Your task to perform on an android device: Open display settings Image 0: 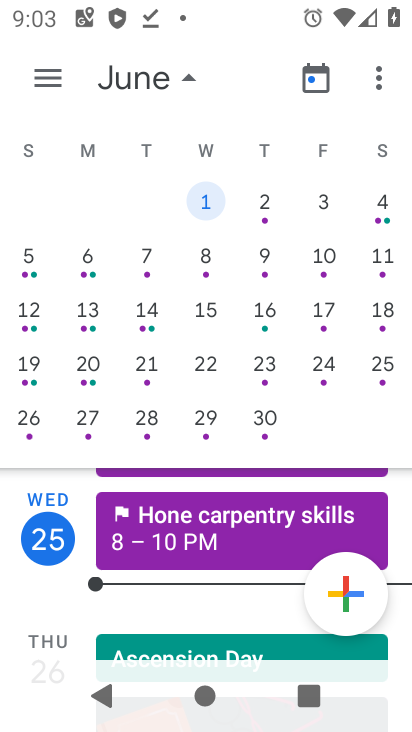
Step 0: drag from (270, 665) to (206, 92)
Your task to perform on an android device: Open display settings Image 1: 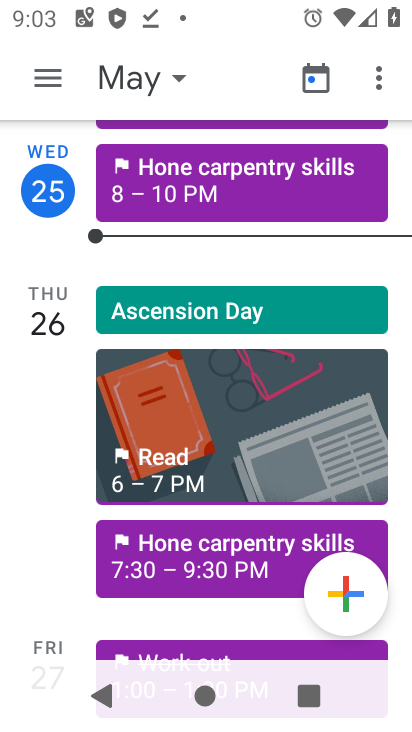
Step 1: press back button
Your task to perform on an android device: Open display settings Image 2: 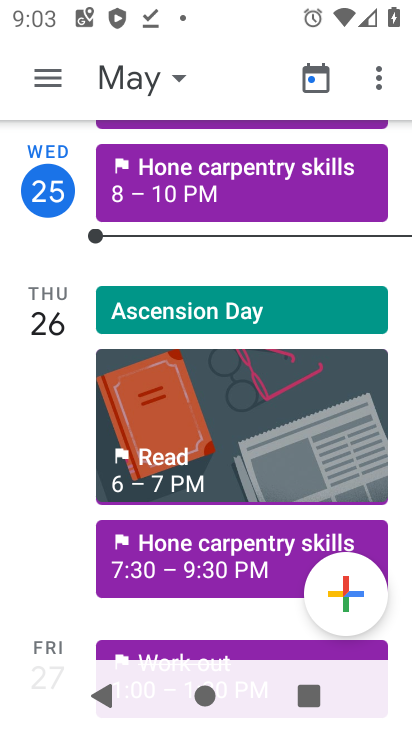
Step 2: press back button
Your task to perform on an android device: Open display settings Image 3: 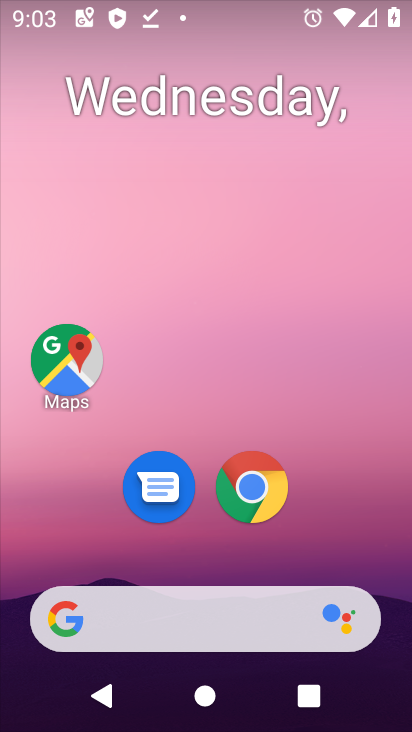
Step 3: drag from (270, 670) to (179, 191)
Your task to perform on an android device: Open display settings Image 4: 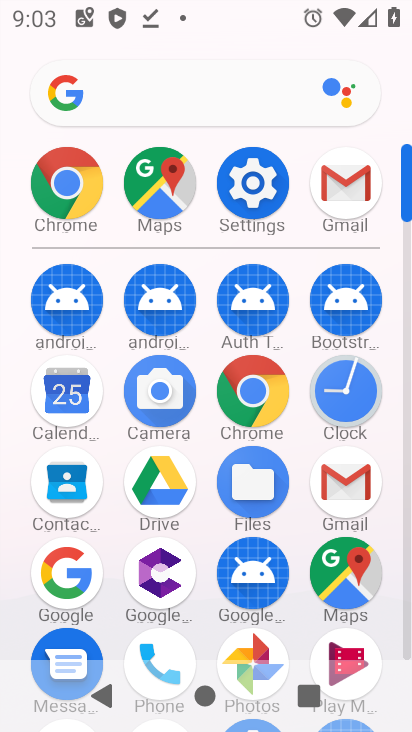
Step 4: click (255, 185)
Your task to perform on an android device: Open display settings Image 5: 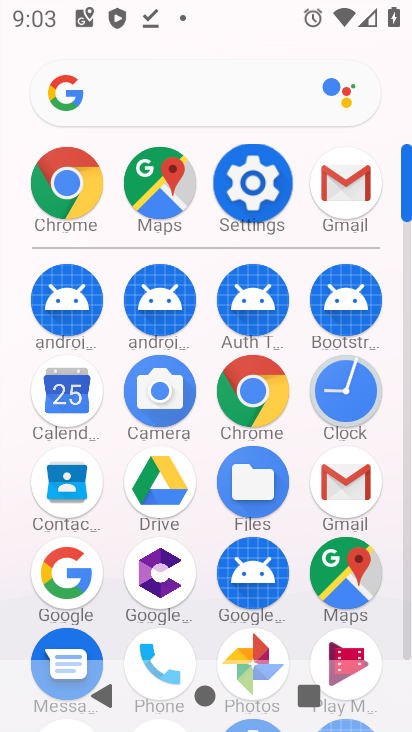
Step 5: click (255, 185)
Your task to perform on an android device: Open display settings Image 6: 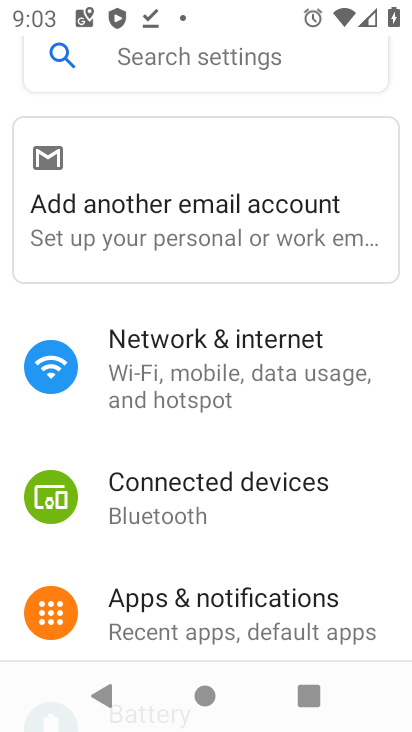
Step 6: drag from (172, 416) to (35, 71)
Your task to perform on an android device: Open display settings Image 7: 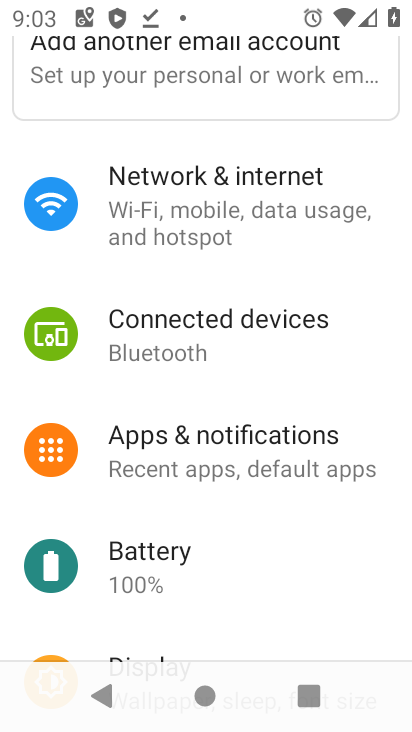
Step 7: drag from (163, 419) to (168, 129)
Your task to perform on an android device: Open display settings Image 8: 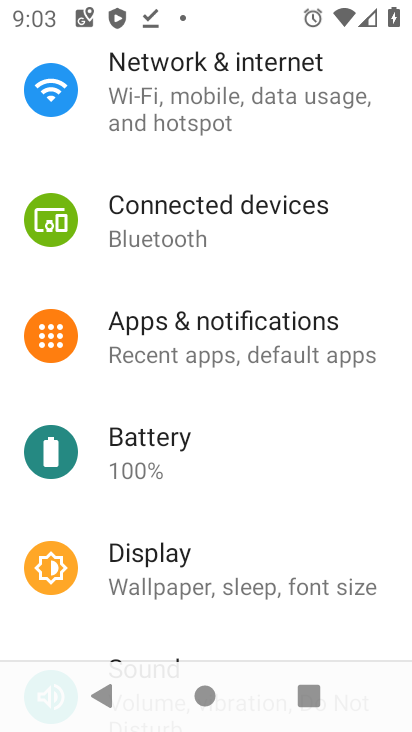
Step 8: drag from (210, 519) to (230, 268)
Your task to perform on an android device: Open display settings Image 9: 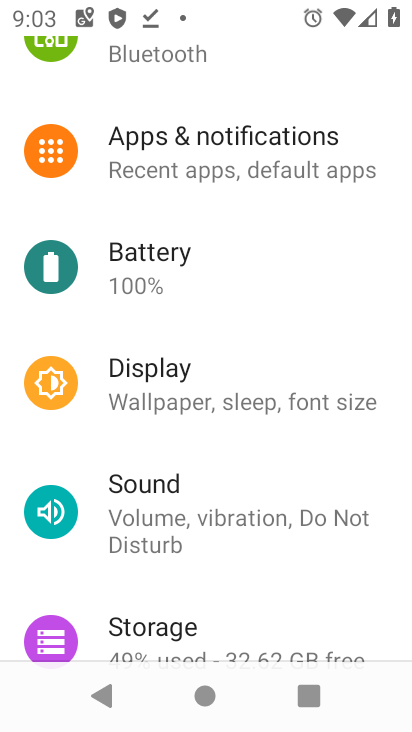
Step 9: click (145, 391)
Your task to perform on an android device: Open display settings Image 10: 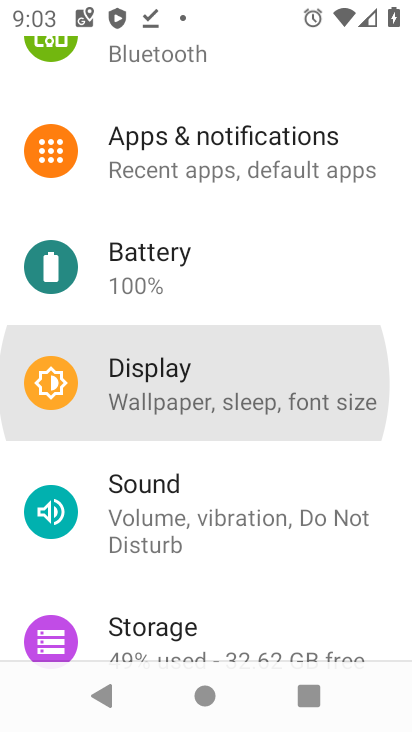
Step 10: click (145, 391)
Your task to perform on an android device: Open display settings Image 11: 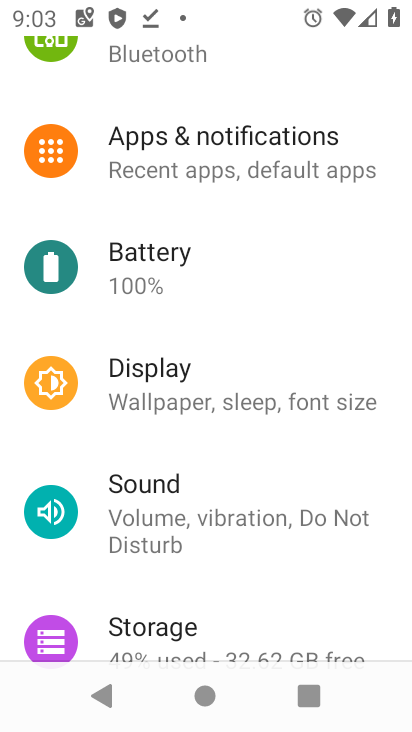
Step 11: click (145, 391)
Your task to perform on an android device: Open display settings Image 12: 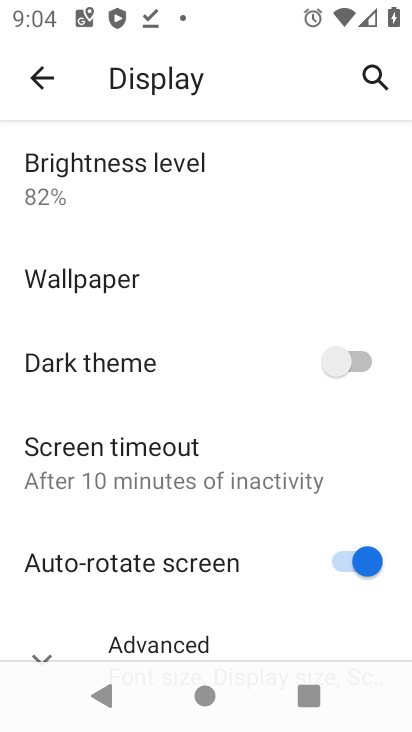
Step 12: drag from (225, 497) to (240, 260)
Your task to perform on an android device: Open display settings Image 13: 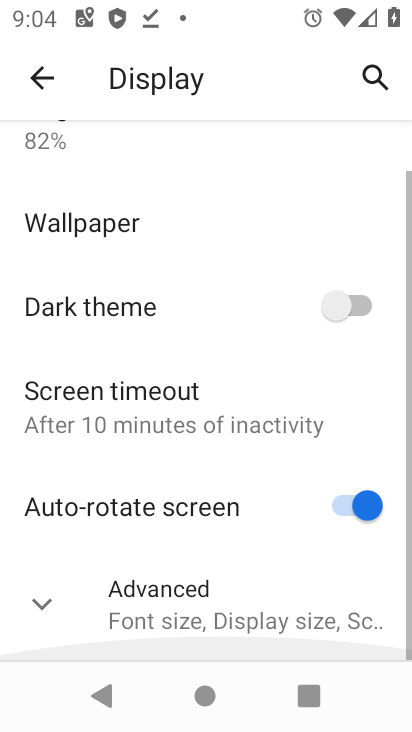
Step 13: drag from (246, 547) to (241, 148)
Your task to perform on an android device: Open display settings Image 14: 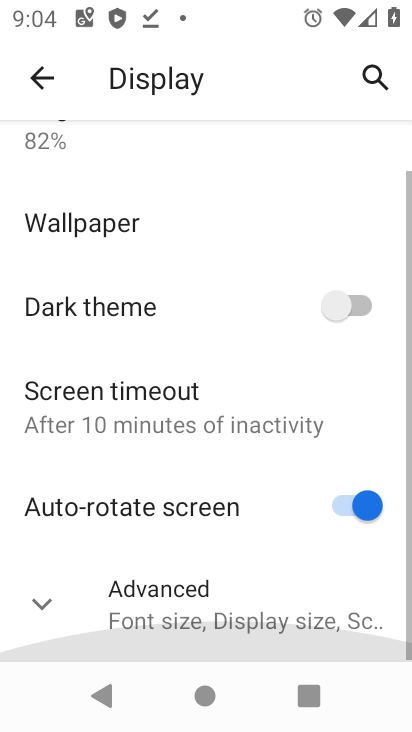
Step 14: drag from (245, 539) to (222, 219)
Your task to perform on an android device: Open display settings Image 15: 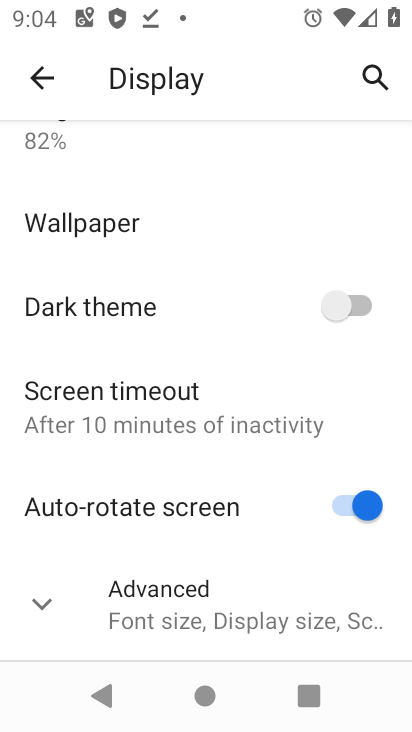
Step 15: click (180, 599)
Your task to perform on an android device: Open display settings Image 16: 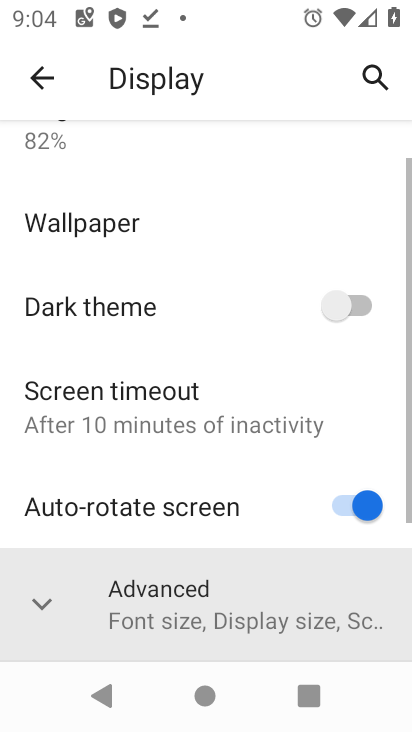
Step 16: click (180, 599)
Your task to perform on an android device: Open display settings Image 17: 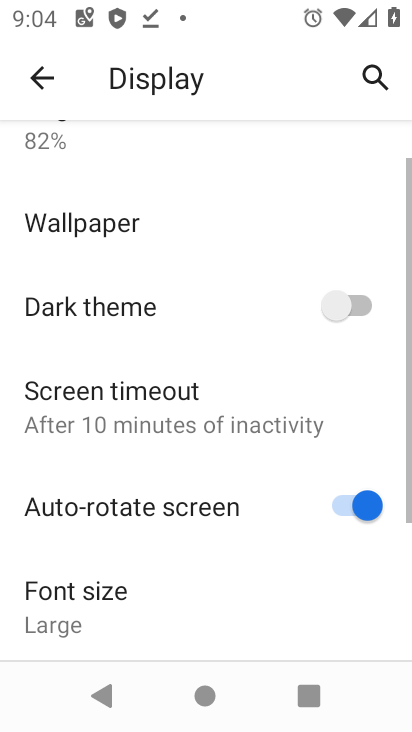
Step 17: click (180, 599)
Your task to perform on an android device: Open display settings Image 18: 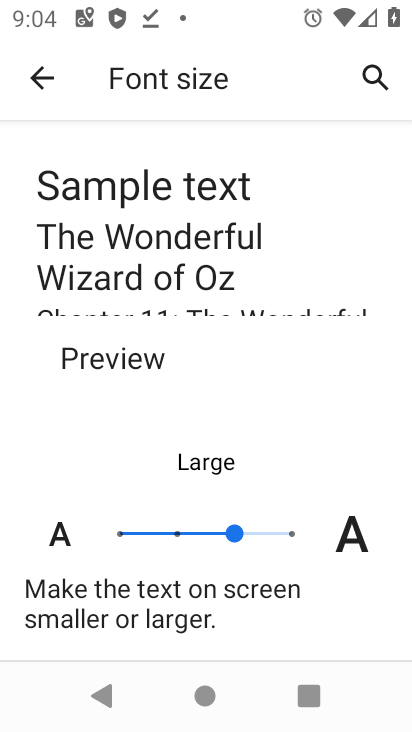
Step 18: click (37, 82)
Your task to perform on an android device: Open display settings Image 19: 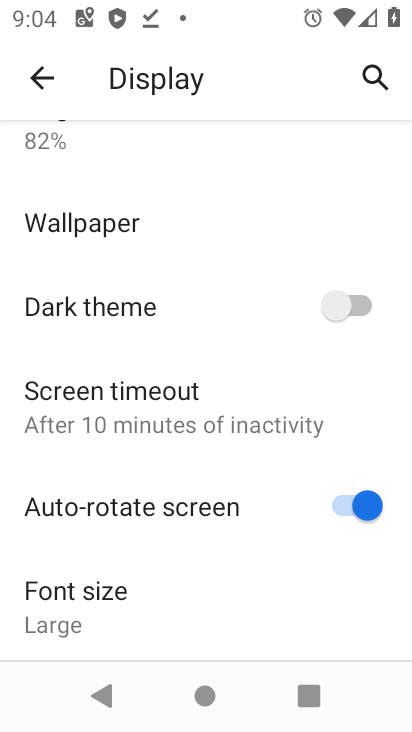
Step 19: task complete